Your task to perform on an android device: Clear all items from cart on walmart.com. Search for macbook pro 13 inch on walmart.com, select the first entry, and add it to the cart. Image 0: 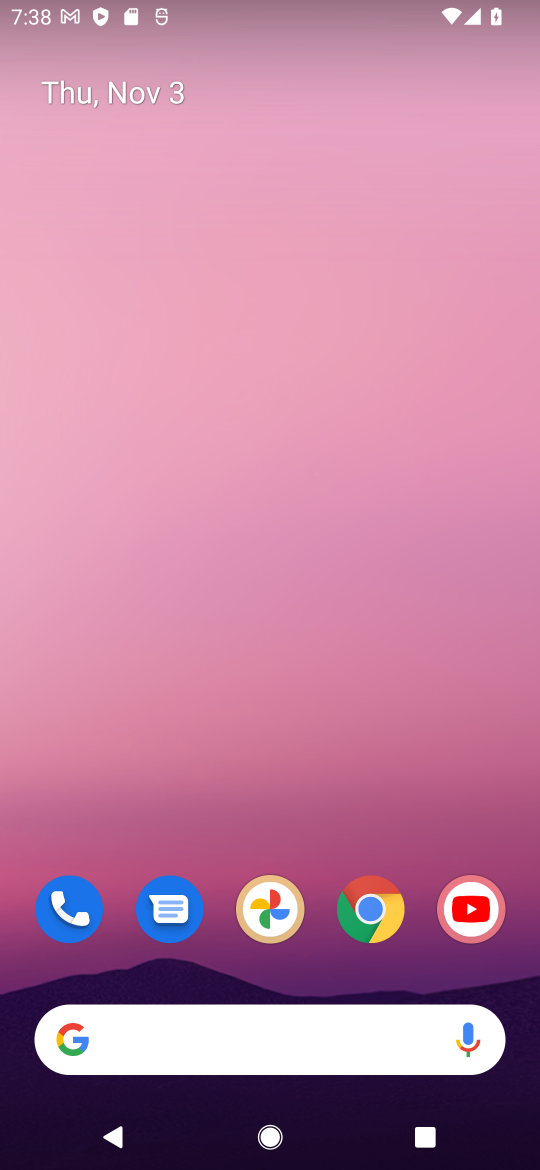
Step 0: drag from (215, 1048) to (240, 375)
Your task to perform on an android device: Clear all items from cart on walmart.com. Search for macbook pro 13 inch on walmart.com, select the first entry, and add it to the cart. Image 1: 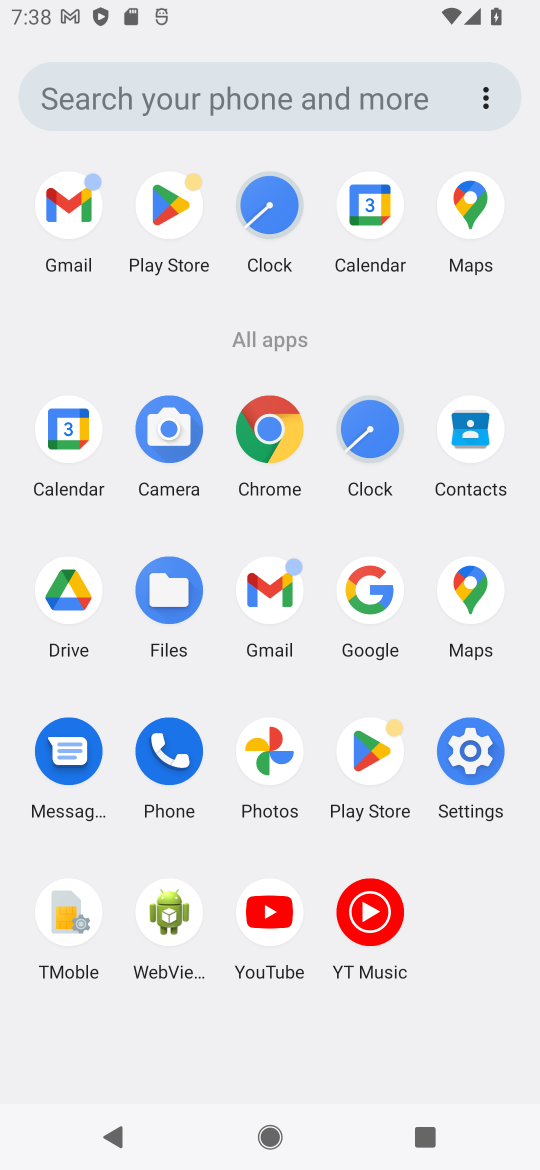
Step 1: click (383, 584)
Your task to perform on an android device: Clear all items from cart on walmart.com. Search for macbook pro 13 inch on walmart.com, select the first entry, and add it to the cart. Image 2: 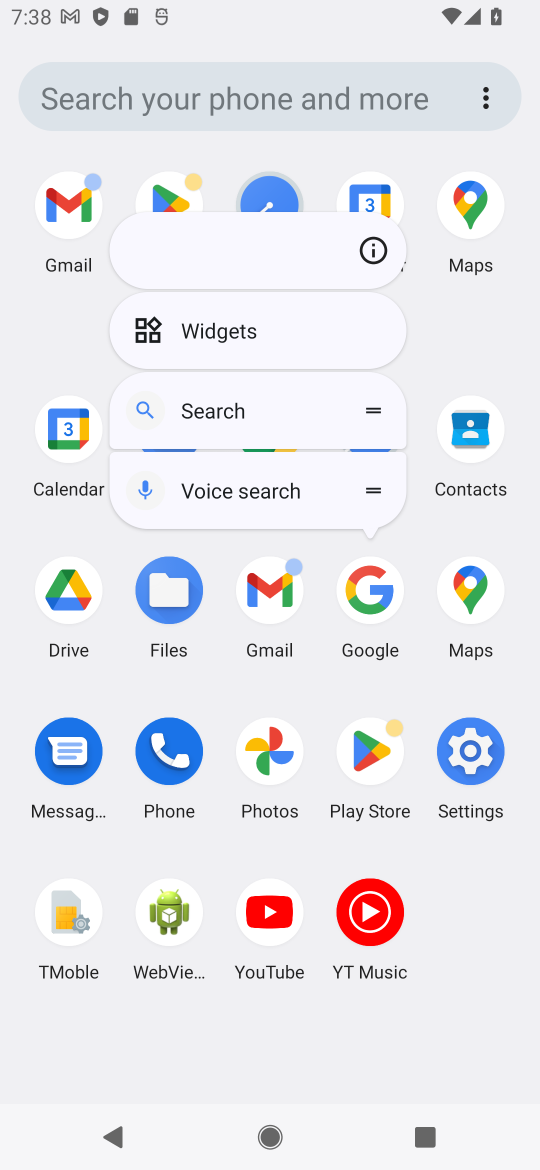
Step 2: click (380, 584)
Your task to perform on an android device: Clear all items from cart on walmart.com. Search for macbook pro 13 inch on walmart.com, select the first entry, and add it to the cart. Image 3: 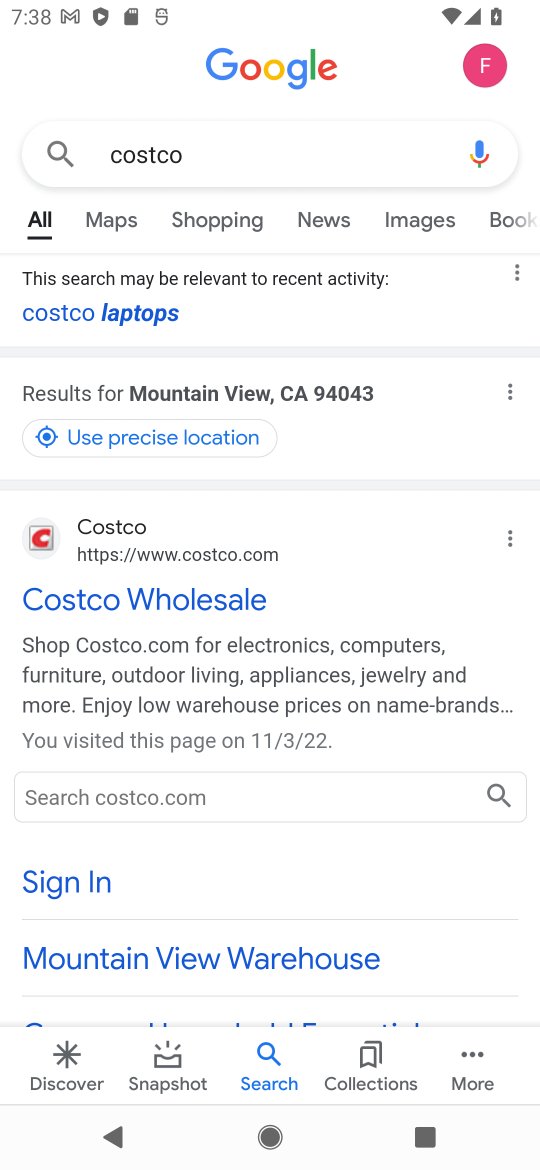
Step 3: click (239, 147)
Your task to perform on an android device: Clear all items from cart on walmart.com. Search for macbook pro 13 inch on walmart.com, select the first entry, and add it to the cart. Image 4: 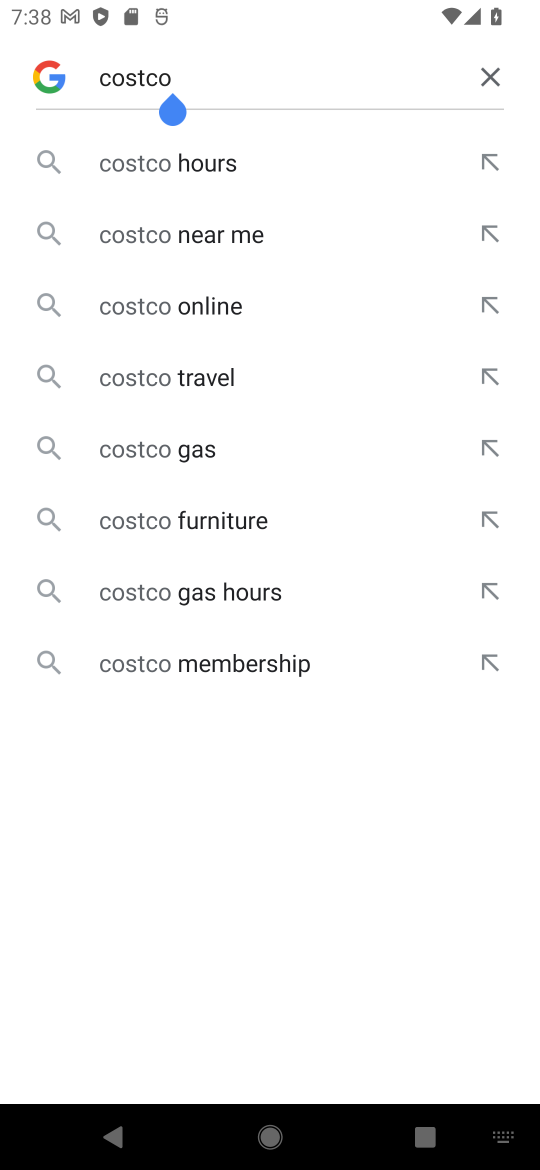
Step 4: click (495, 70)
Your task to perform on an android device: Clear all items from cart on walmart.com. Search for macbook pro 13 inch on walmart.com, select the first entry, and add it to the cart. Image 5: 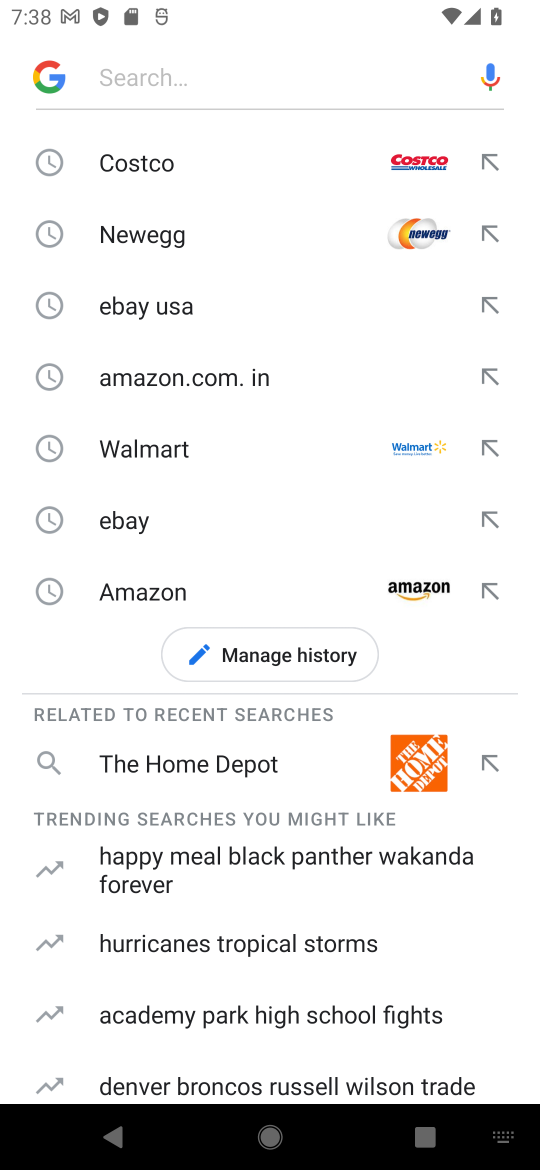
Step 5: click (144, 462)
Your task to perform on an android device: Clear all items from cart on walmart.com. Search for macbook pro 13 inch on walmart.com, select the first entry, and add it to the cart. Image 6: 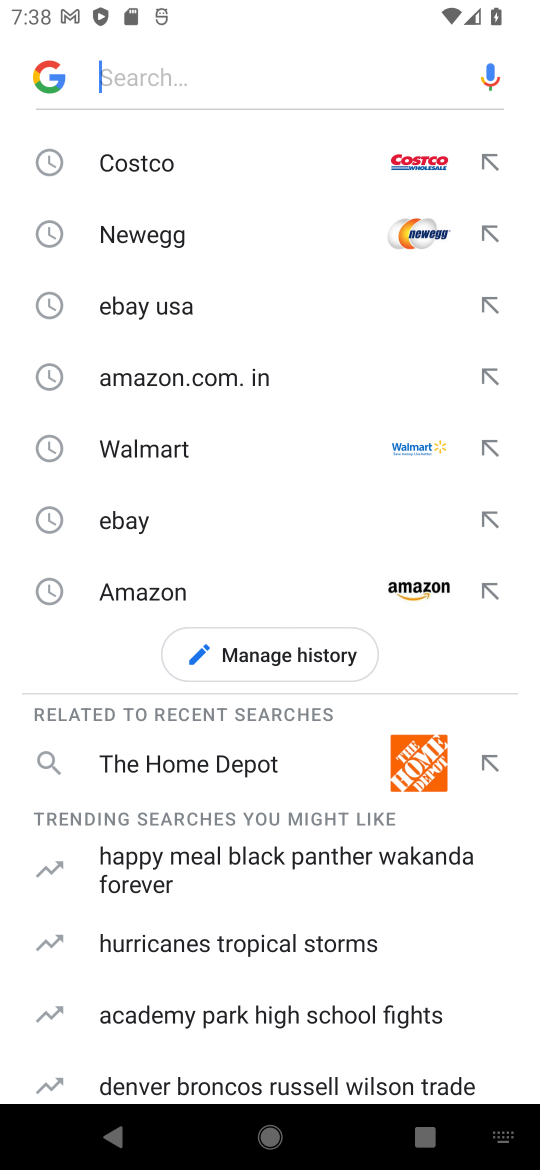
Step 6: click (144, 451)
Your task to perform on an android device: Clear all items from cart on walmart.com. Search for macbook pro 13 inch on walmart.com, select the first entry, and add it to the cart. Image 7: 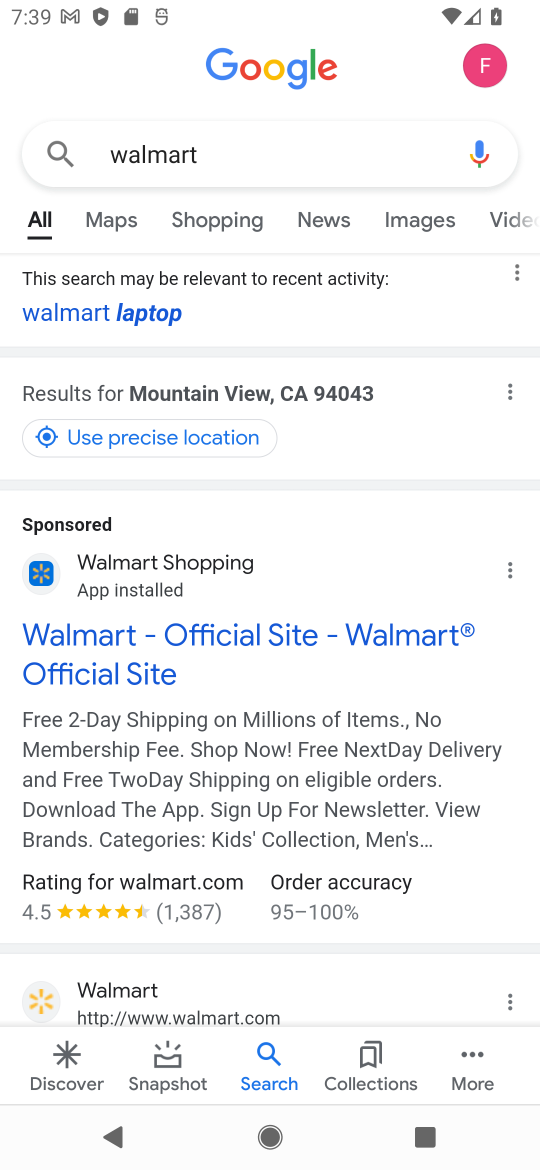
Step 7: click (35, 571)
Your task to perform on an android device: Clear all items from cart on walmart.com. Search for macbook pro 13 inch on walmart.com, select the first entry, and add it to the cart. Image 8: 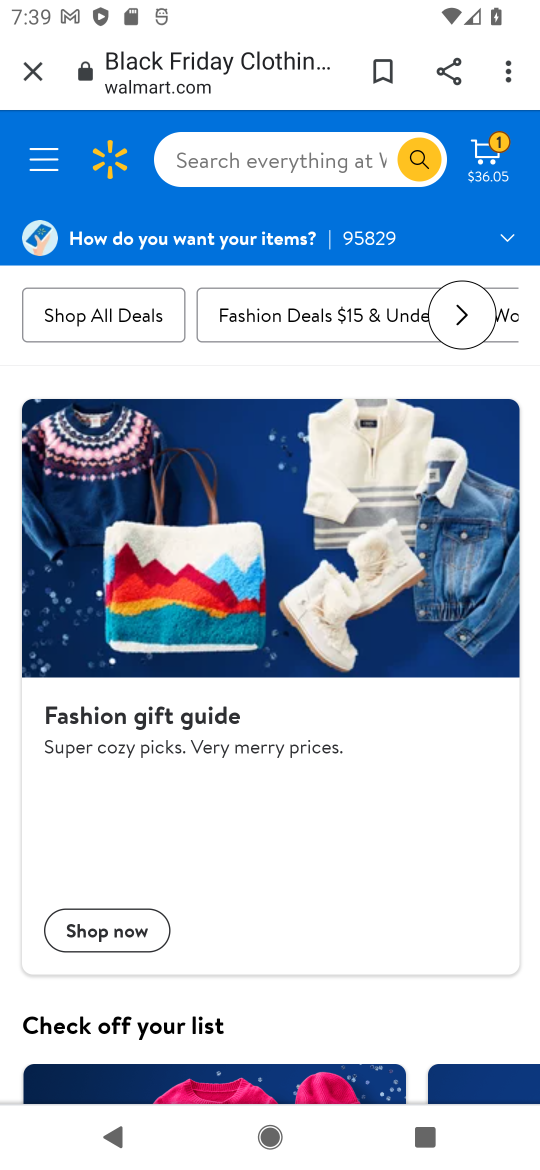
Step 8: click (281, 143)
Your task to perform on an android device: Clear all items from cart on walmart.com. Search for macbook pro 13 inch on walmart.com, select the first entry, and add it to the cart. Image 9: 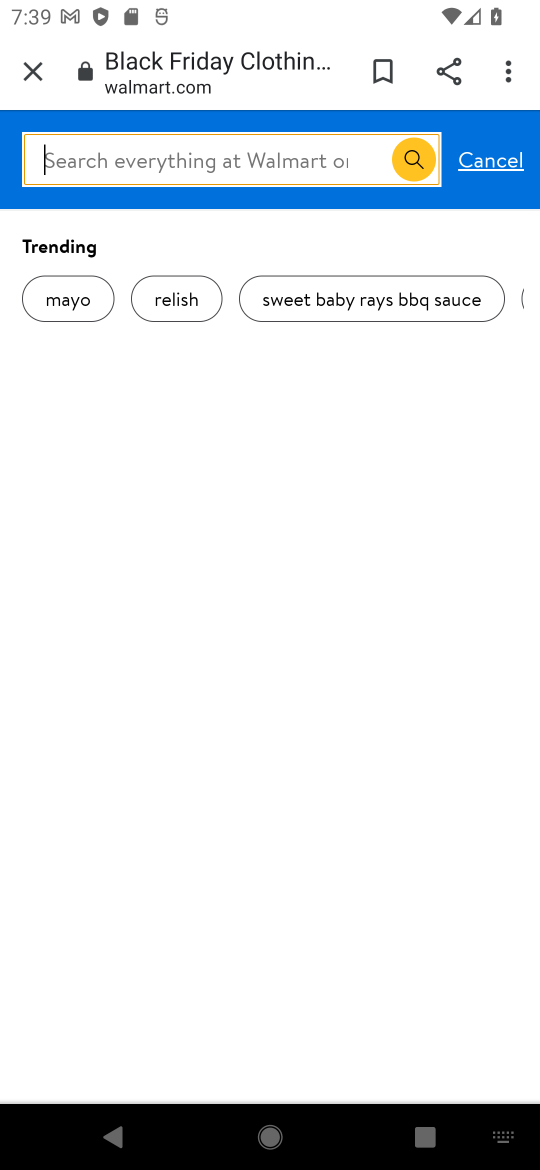
Step 9: click (153, 150)
Your task to perform on an android device: Clear all items from cart on walmart.com. Search for macbook pro 13 inch on walmart.com, select the first entry, and add it to the cart. Image 10: 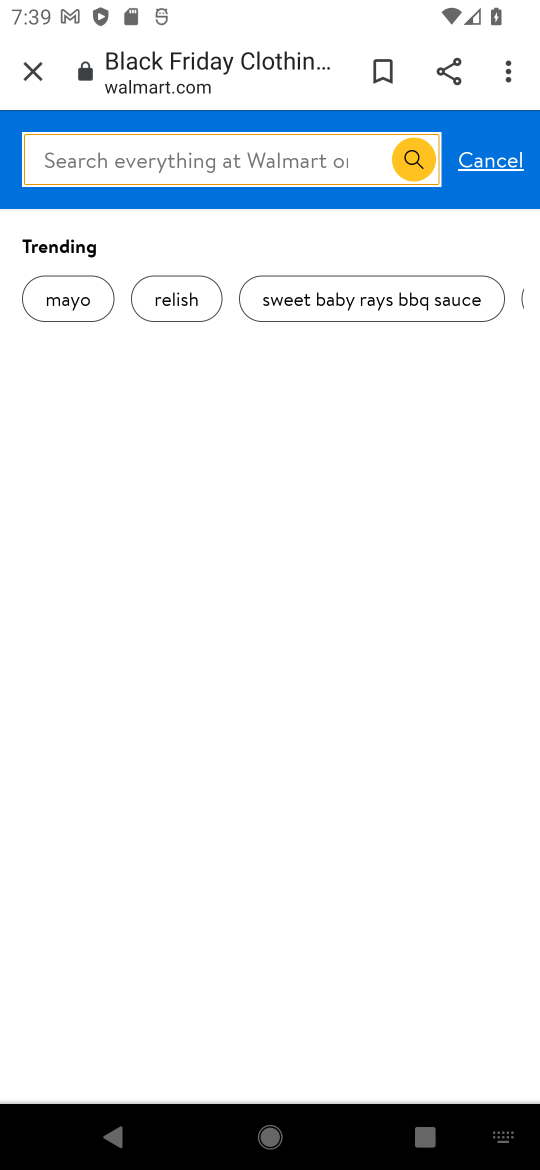
Step 10: click (229, 138)
Your task to perform on an android device: Clear all items from cart on walmart.com. Search for macbook pro 13 inch on walmart.com, select the first entry, and add it to the cart. Image 11: 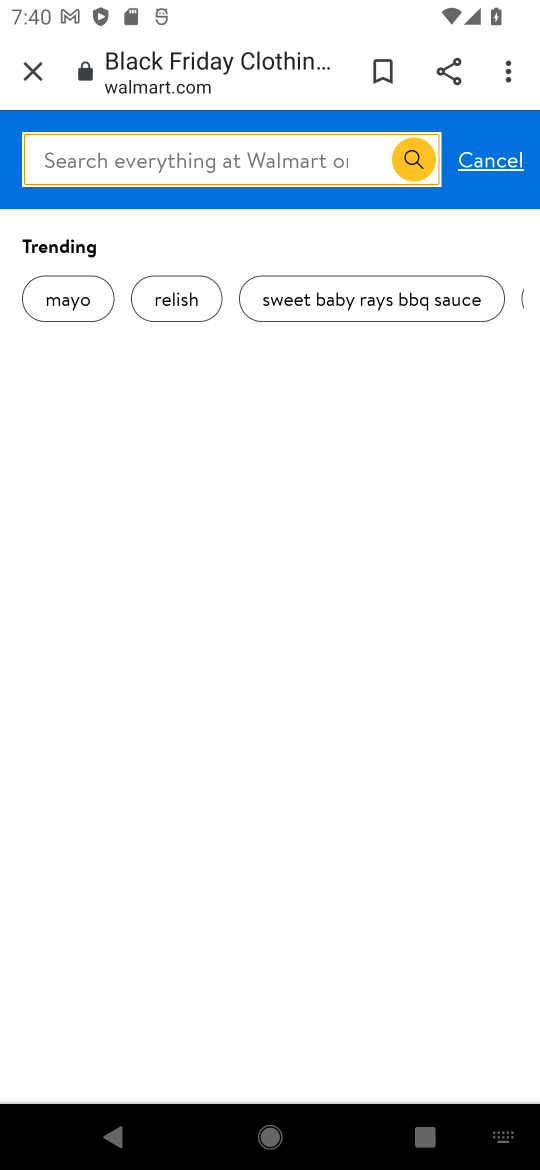
Step 11: click (198, 153)
Your task to perform on an android device: Clear all items from cart on walmart.com. Search for macbook pro 13 inch on walmart.com, select the first entry, and add it to the cart. Image 12: 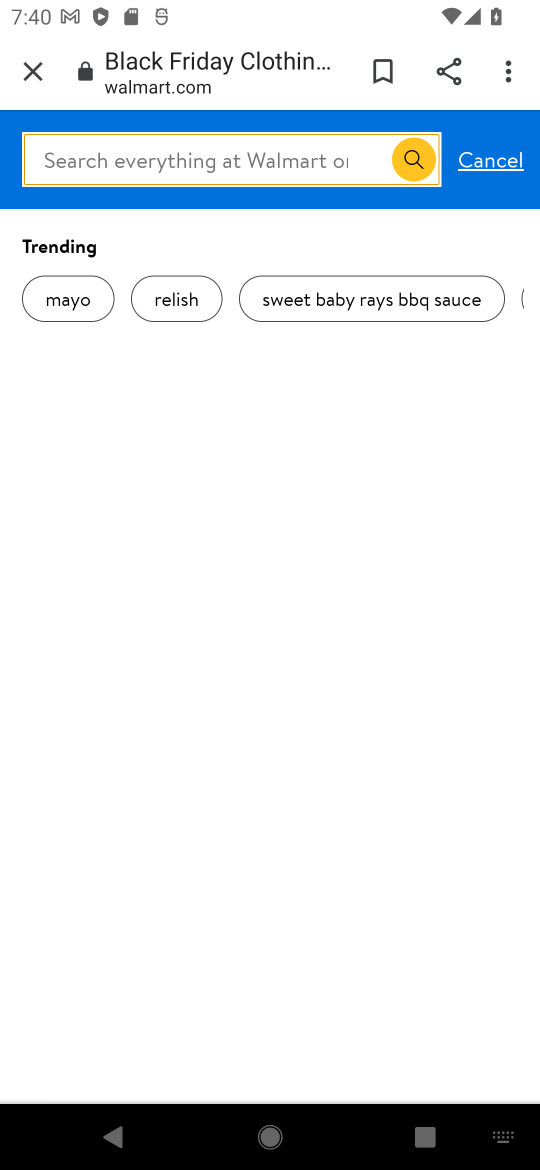
Step 12: type " macbook pro 13 inch  "
Your task to perform on an android device: Clear all items from cart on walmart.com. Search for macbook pro 13 inch on walmart.com, select the first entry, and add it to the cart. Image 13: 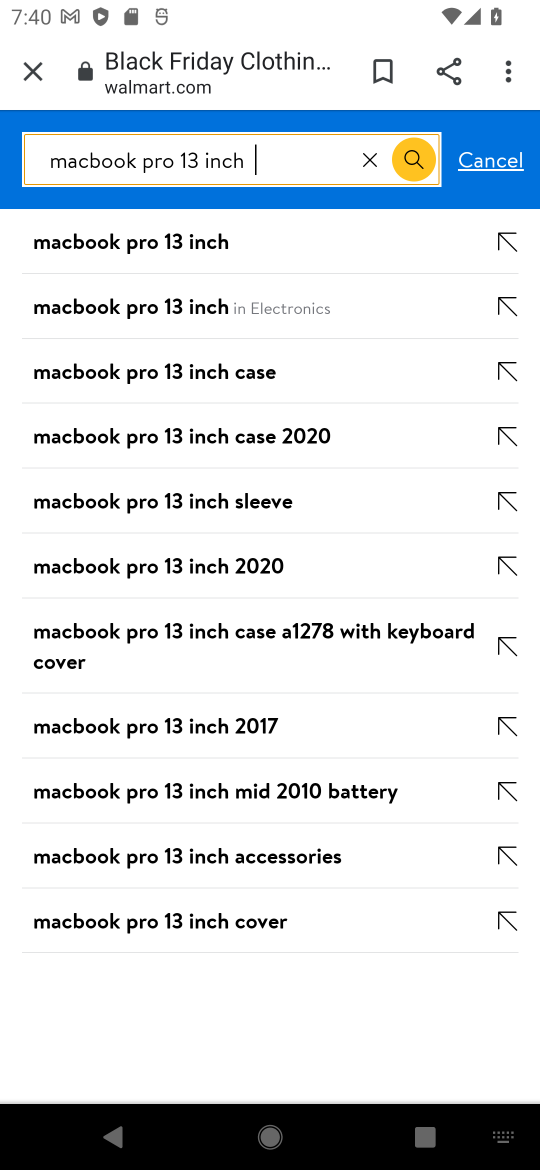
Step 13: click (200, 241)
Your task to perform on an android device: Clear all items from cart on walmart.com. Search for macbook pro 13 inch on walmart.com, select the first entry, and add it to the cart. Image 14: 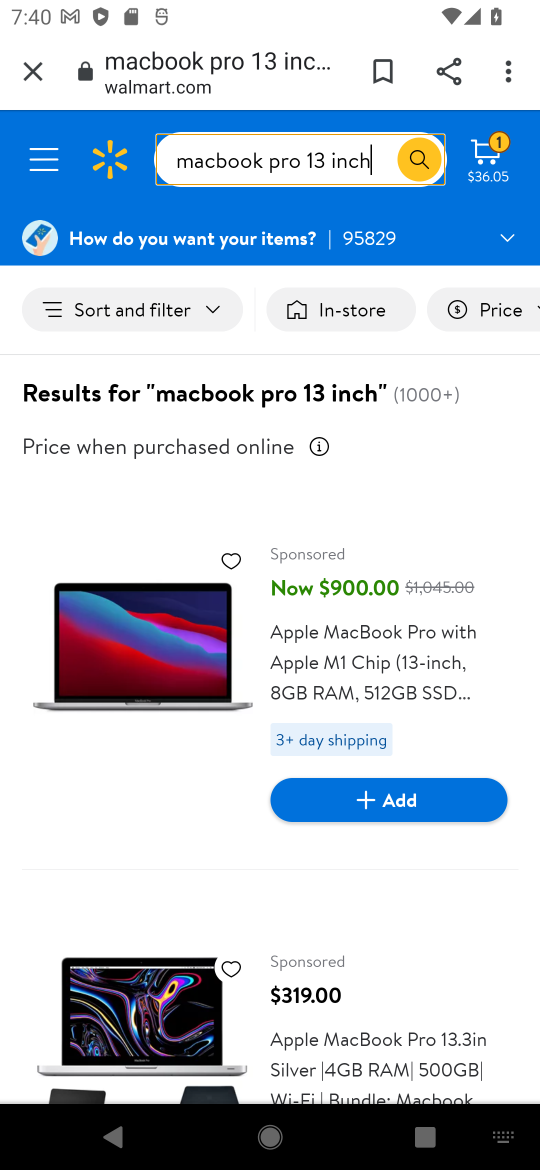
Step 14: click (419, 787)
Your task to perform on an android device: Clear all items from cart on walmart.com. Search for macbook pro 13 inch on walmart.com, select the first entry, and add it to the cart. Image 15: 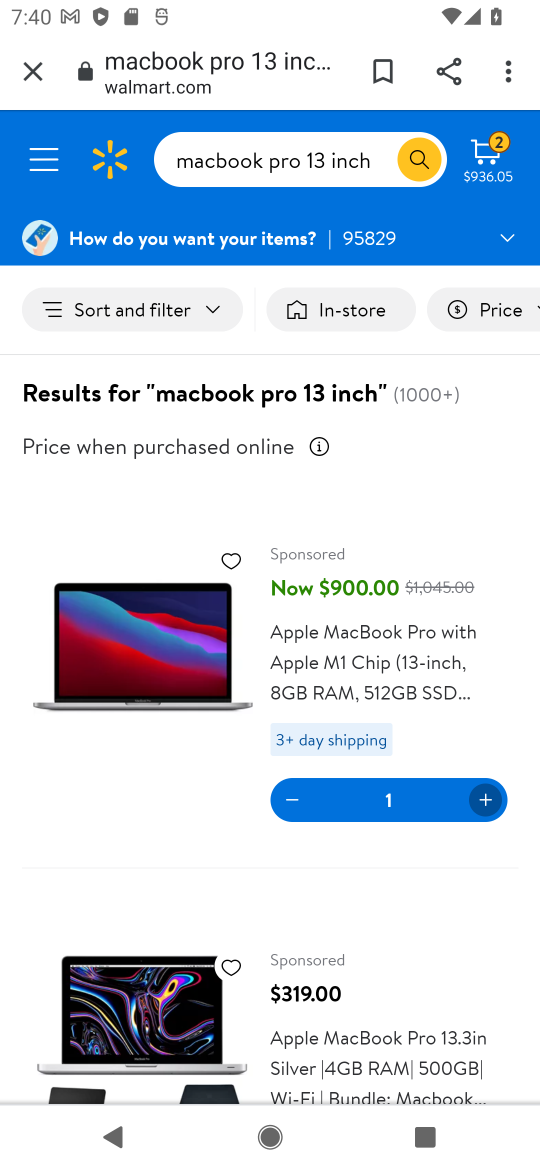
Step 15: task complete